Your task to perform on an android device: Open calendar and show me the fourth week of next month Image 0: 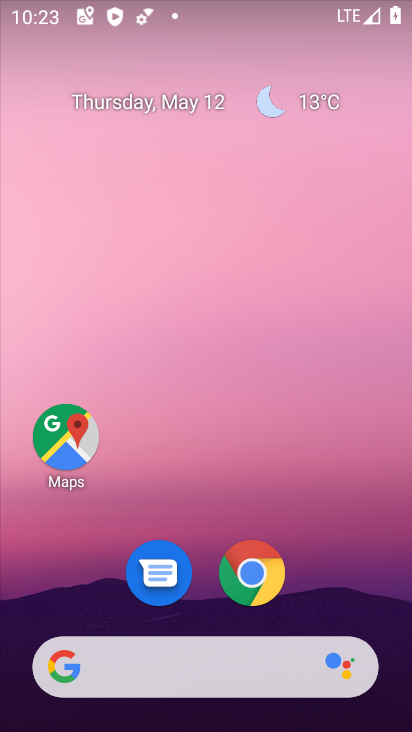
Step 0: drag from (197, 625) to (147, 91)
Your task to perform on an android device: Open calendar and show me the fourth week of next month Image 1: 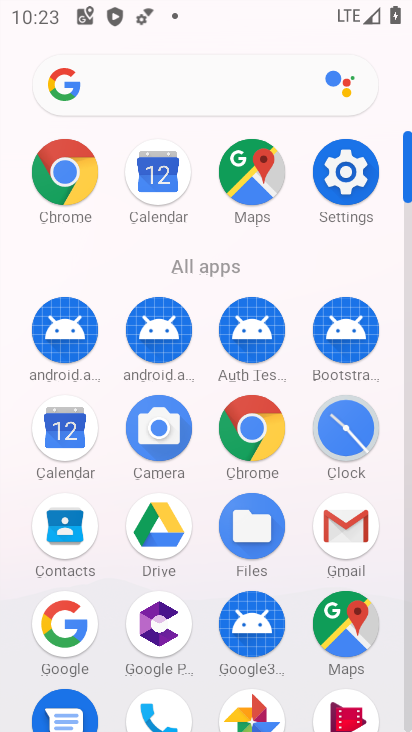
Step 1: click (83, 417)
Your task to perform on an android device: Open calendar and show me the fourth week of next month Image 2: 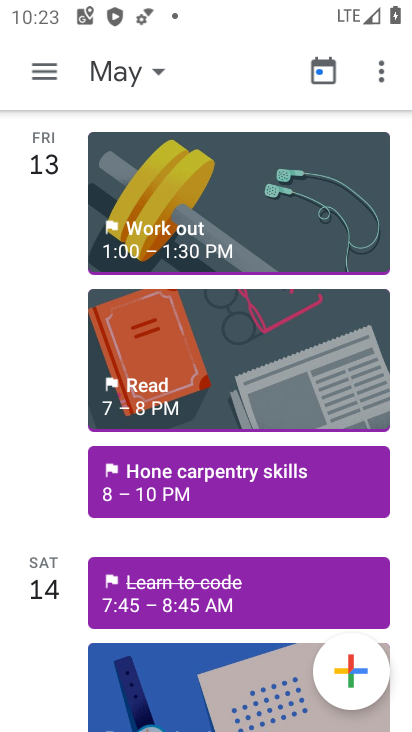
Step 2: click (32, 69)
Your task to perform on an android device: Open calendar and show me the fourth week of next month Image 3: 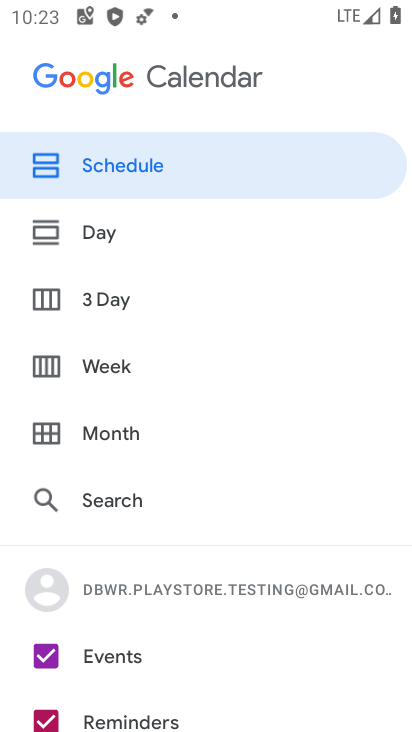
Step 3: click (142, 359)
Your task to perform on an android device: Open calendar and show me the fourth week of next month Image 4: 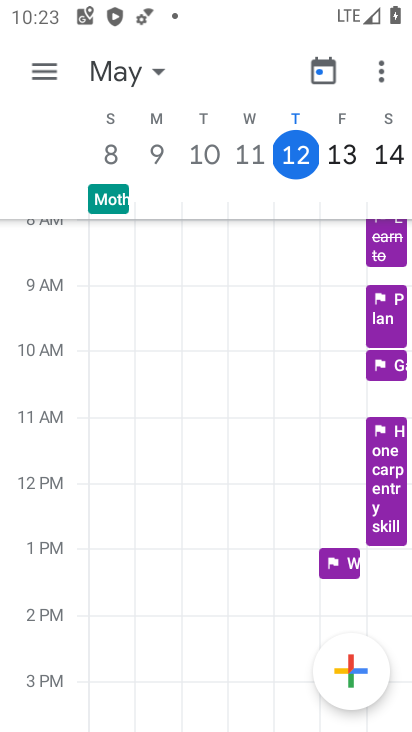
Step 4: task complete